Your task to perform on an android device: Go to battery settings Image 0: 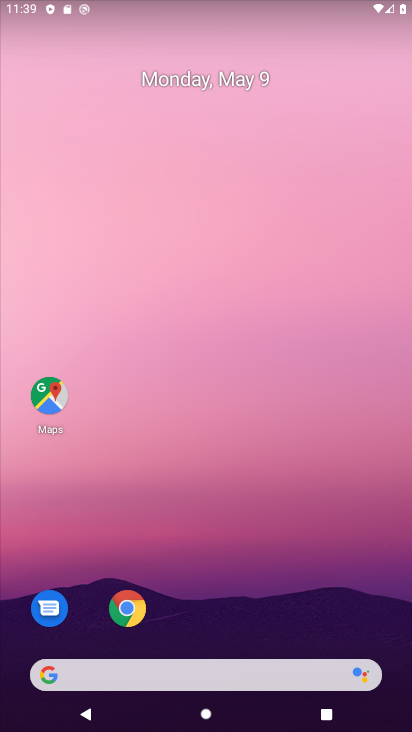
Step 0: drag from (239, 629) to (343, 157)
Your task to perform on an android device: Go to battery settings Image 1: 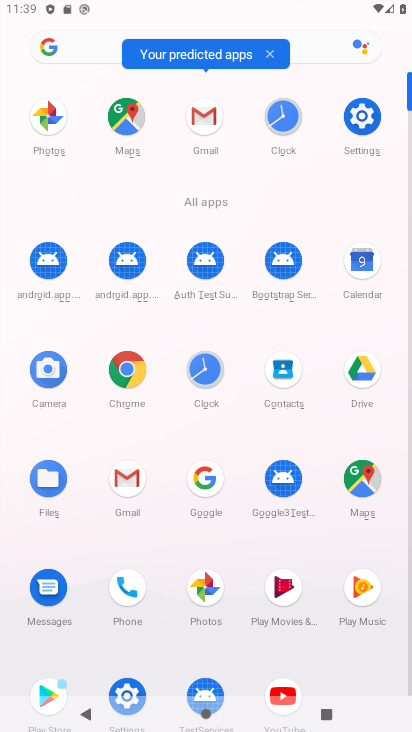
Step 1: click (125, 683)
Your task to perform on an android device: Go to battery settings Image 2: 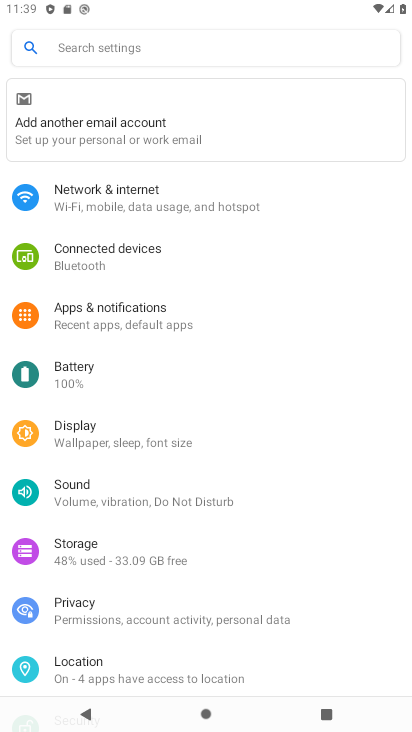
Step 2: click (175, 370)
Your task to perform on an android device: Go to battery settings Image 3: 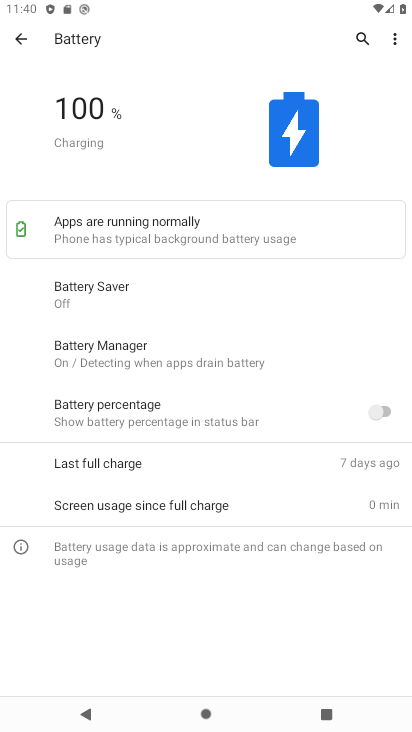
Step 3: task complete